Your task to perform on an android device: make emails show in primary in the gmail app Image 0: 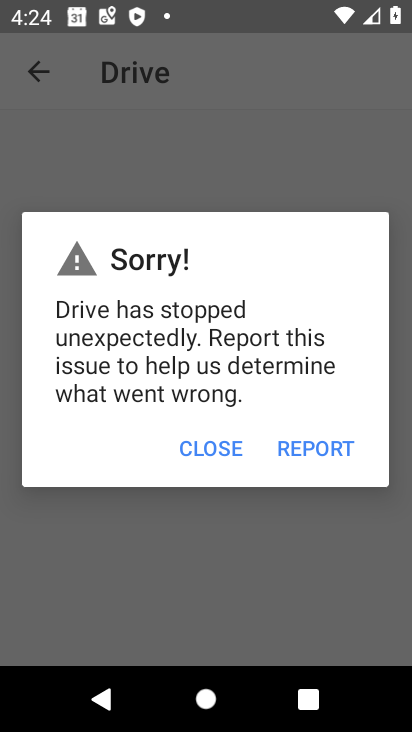
Step 0: press back button
Your task to perform on an android device: make emails show in primary in the gmail app Image 1: 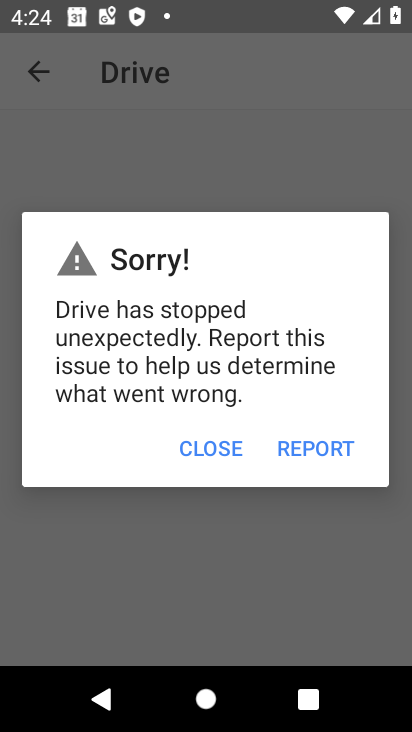
Step 1: press home button
Your task to perform on an android device: make emails show in primary in the gmail app Image 2: 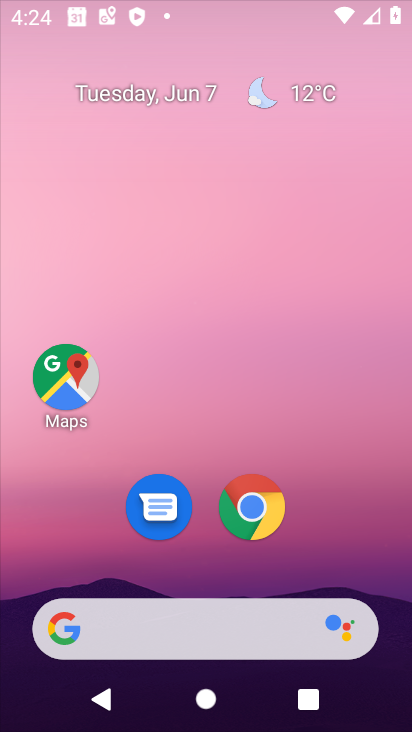
Step 2: drag from (338, 505) to (269, 49)
Your task to perform on an android device: make emails show in primary in the gmail app Image 3: 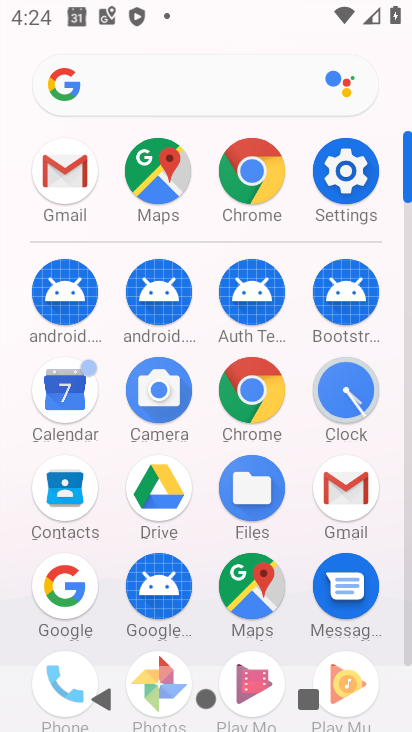
Step 3: click (348, 484)
Your task to perform on an android device: make emails show in primary in the gmail app Image 4: 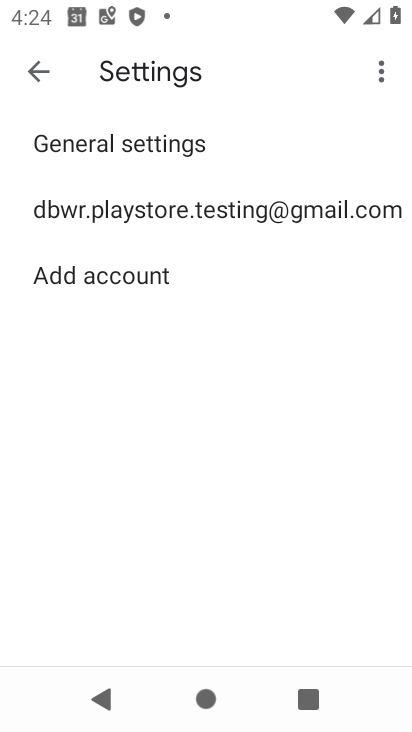
Step 4: click (29, 65)
Your task to perform on an android device: make emails show in primary in the gmail app Image 5: 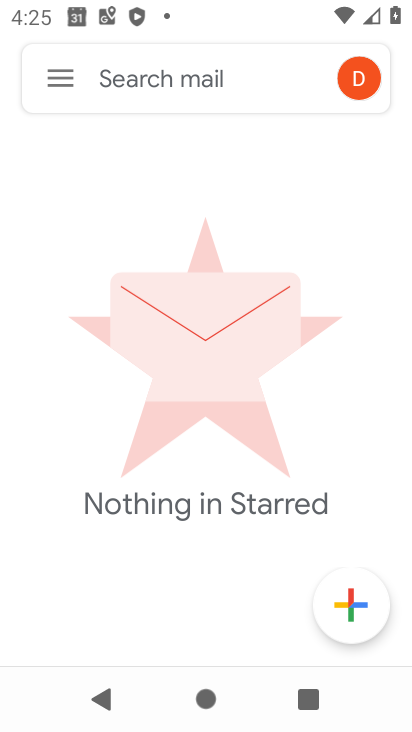
Step 5: click (73, 70)
Your task to perform on an android device: make emails show in primary in the gmail app Image 6: 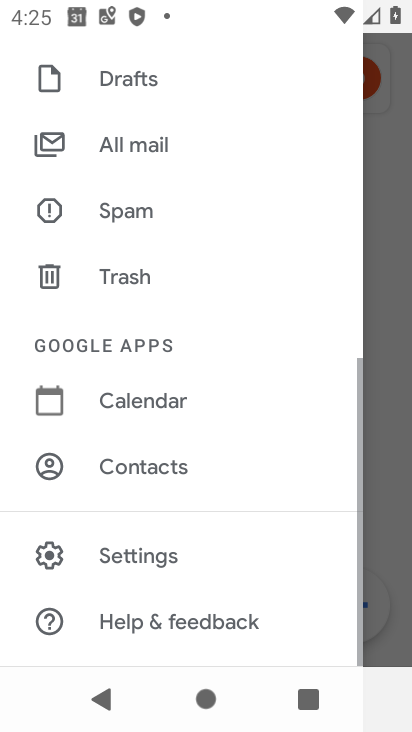
Step 6: drag from (279, 160) to (286, 43)
Your task to perform on an android device: make emails show in primary in the gmail app Image 7: 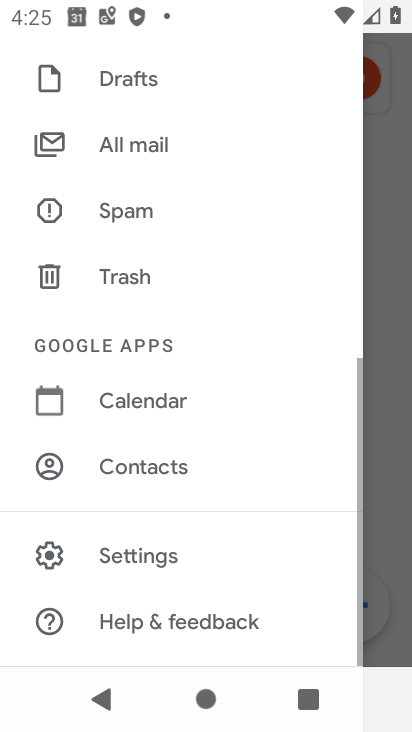
Step 7: click (138, 562)
Your task to perform on an android device: make emails show in primary in the gmail app Image 8: 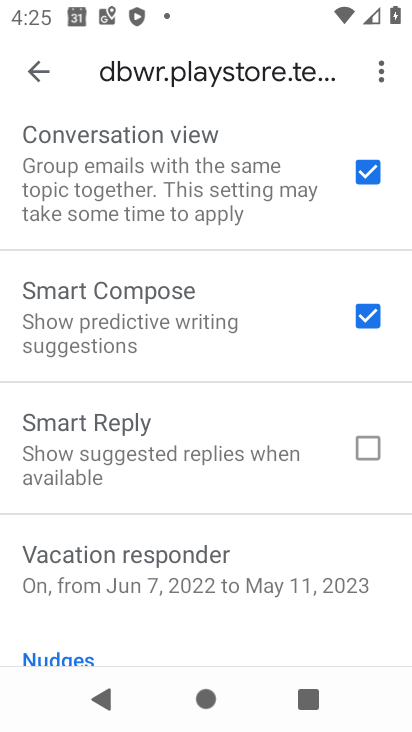
Step 8: drag from (211, 573) to (245, 139)
Your task to perform on an android device: make emails show in primary in the gmail app Image 9: 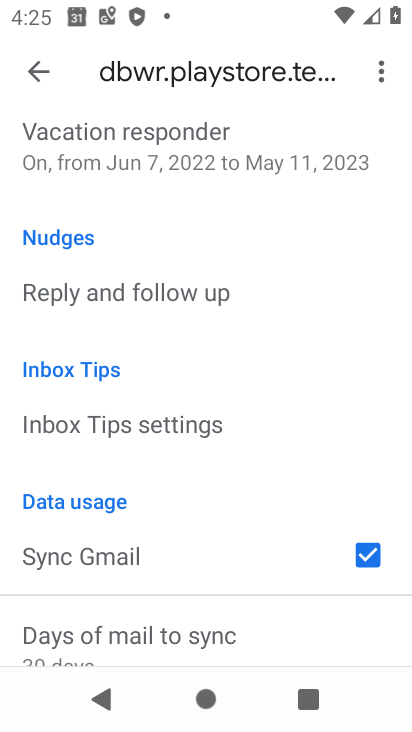
Step 9: drag from (247, 537) to (240, 59)
Your task to perform on an android device: make emails show in primary in the gmail app Image 10: 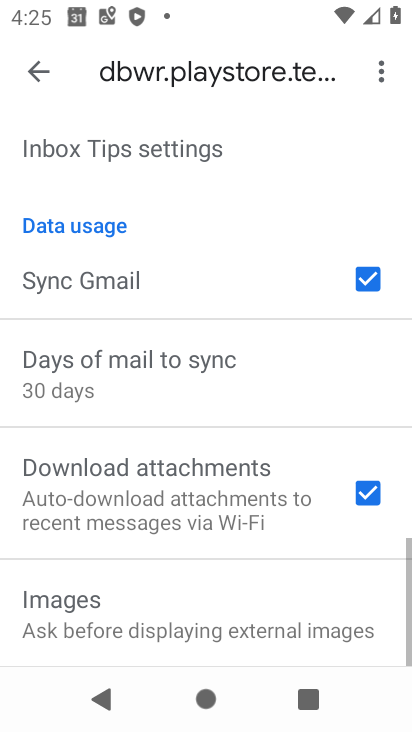
Step 10: drag from (200, 587) to (256, 118)
Your task to perform on an android device: make emails show in primary in the gmail app Image 11: 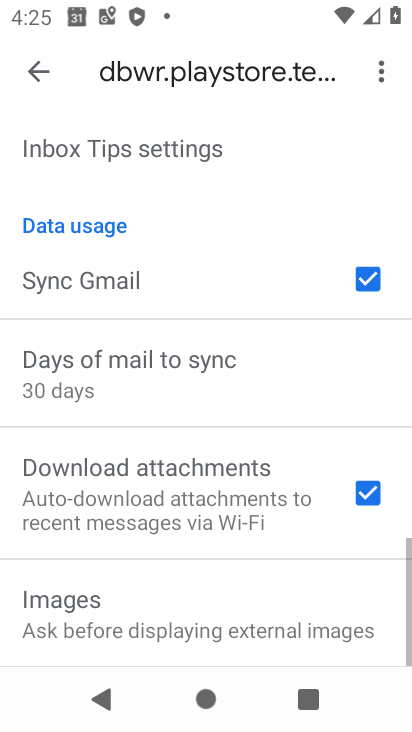
Step 11: drag from (251, 420) to (262, 167)
Your task to perform on an android device: make emails show in primary in the gmail app Image 12: 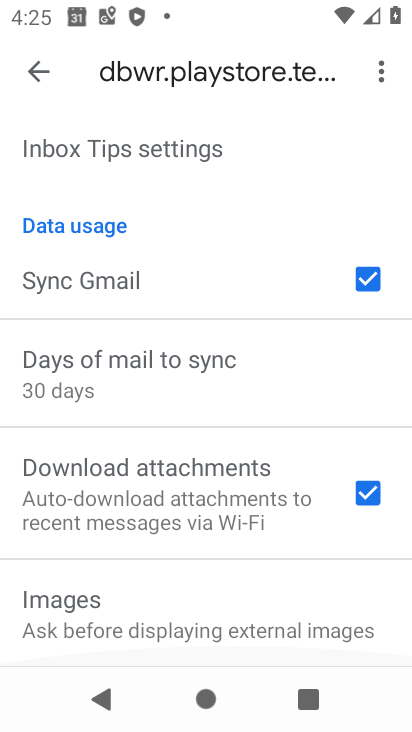
Step 12: drag from (259, 203) to (228, 668)
Your task to perform on an android device: make emails show in primary in the gmail app Image 13: 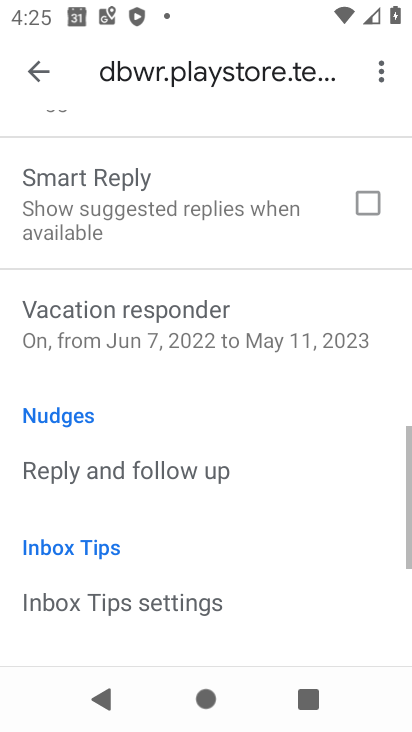
Step 13: drag from (211, 215) to (199, 683)
Your task to perform on an android device: make emails show in primary in the gmail app Image 14: 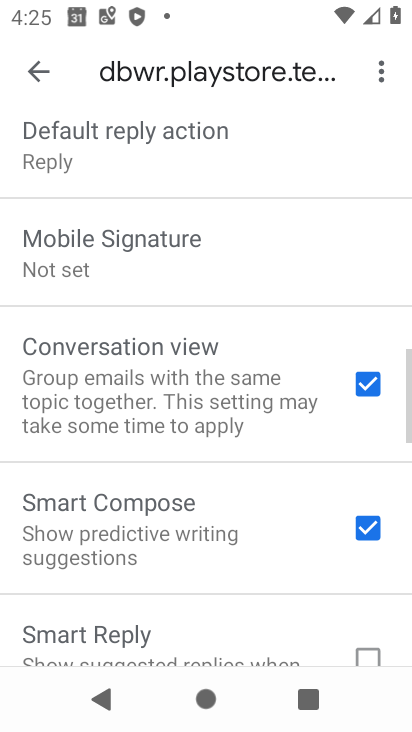
Step 14: drag from (246, 345) to (227, 688)
Your task to perform on an android device: make emails show in primary in the gmail app Image 15: 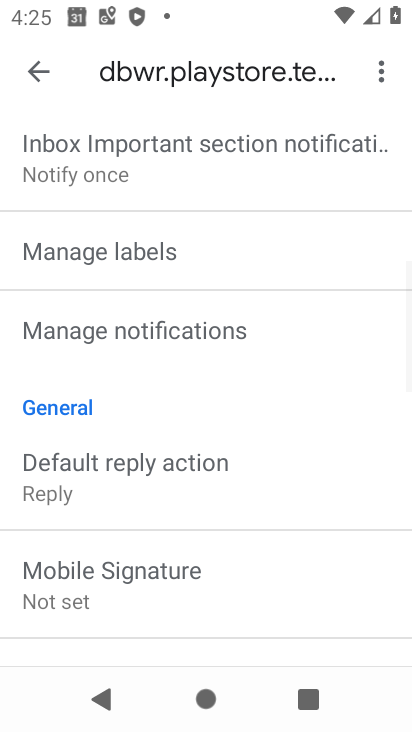
Step 15: drag from (249, 219) to (261, 685)
Your task to perform on an android device: make emails show in primary in the gmail app Image 16: 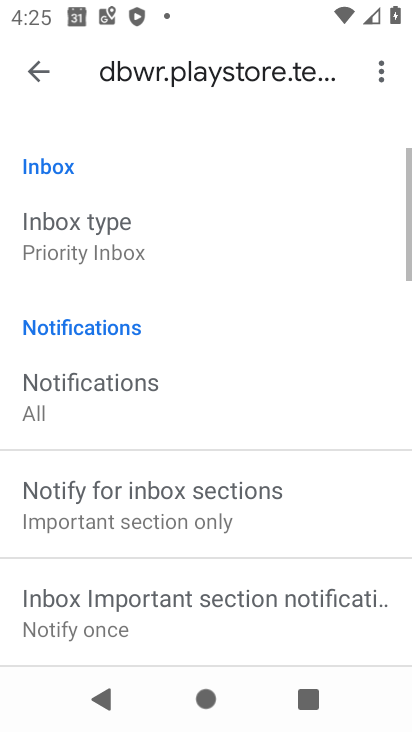
Step 16: drag from (163, 283) to (163, 550)
Your task to perform on an android device: make emails show in primary in the gmail app Image 17: 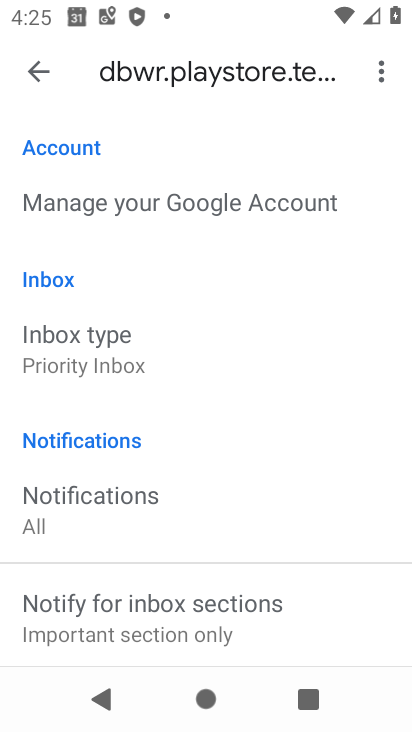
Step 17: click (120, 323)
Your task to perform on an android device: make emails show in primary in the gmail app Image 18: 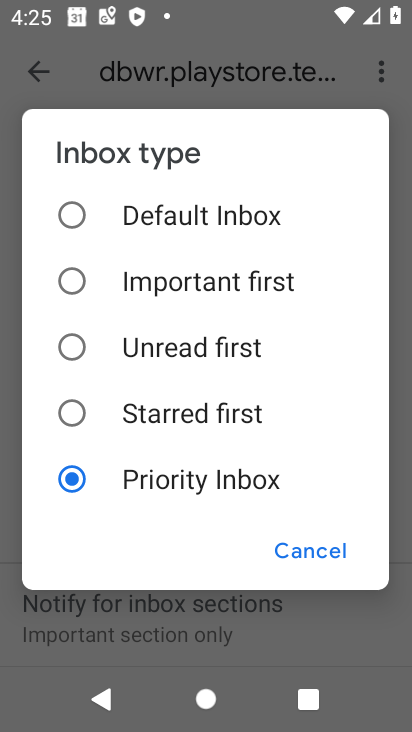
Step 18: click (169, 216)
Your task to perform on an android device: make emails show in primary in the gmail app Image 19: 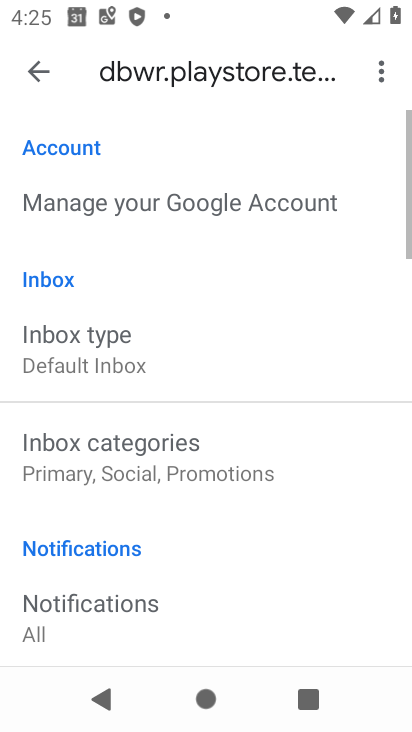
Step 19: click (135, 456)
Your task to perform on an android device: make emails show in primary in the gmail app Image 20: 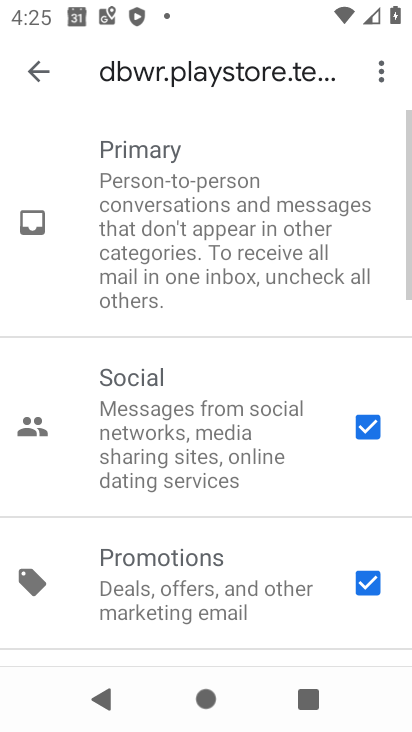
Step 20: click (363, 422)
Your task to perform on an android device: make emails show in primary in the gmail app Image 21: 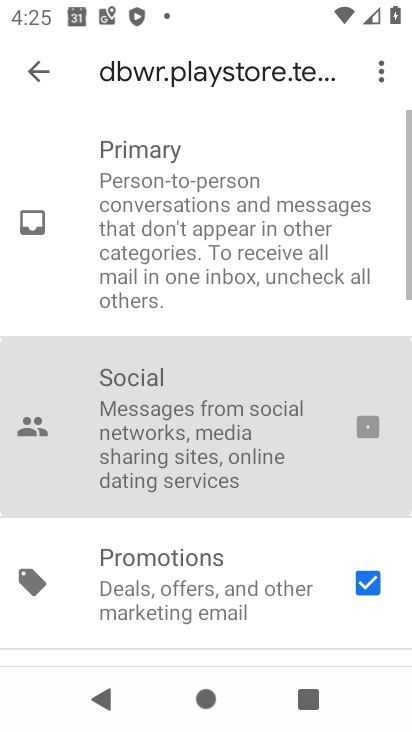
Step 21: click (359, 571)
Your task to perform on an android device: make emails show in primary in the gmail app Image 22: 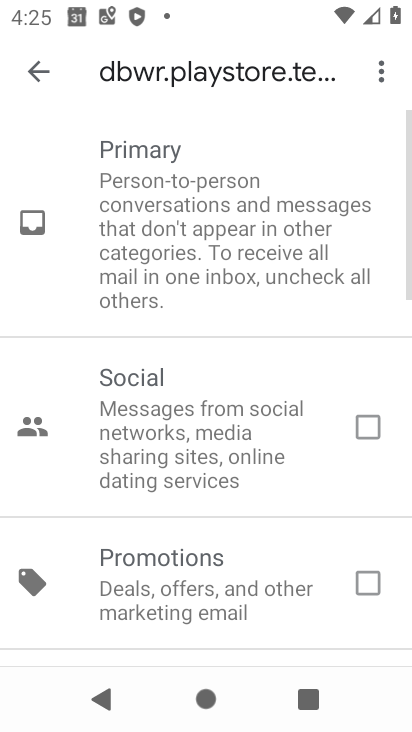
Step 22: click (35, 71)
Your task to perform on an android device: make emails show in primary in the gmail app Image 23: 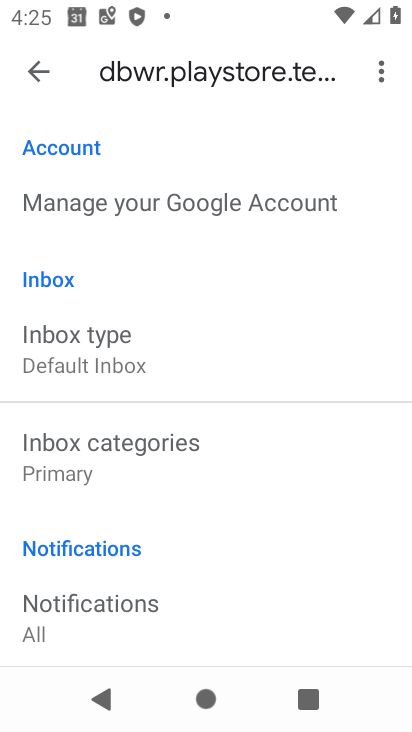
Step 23: task complete